Your task to perform on an android device: install app "Skype" Image 0: 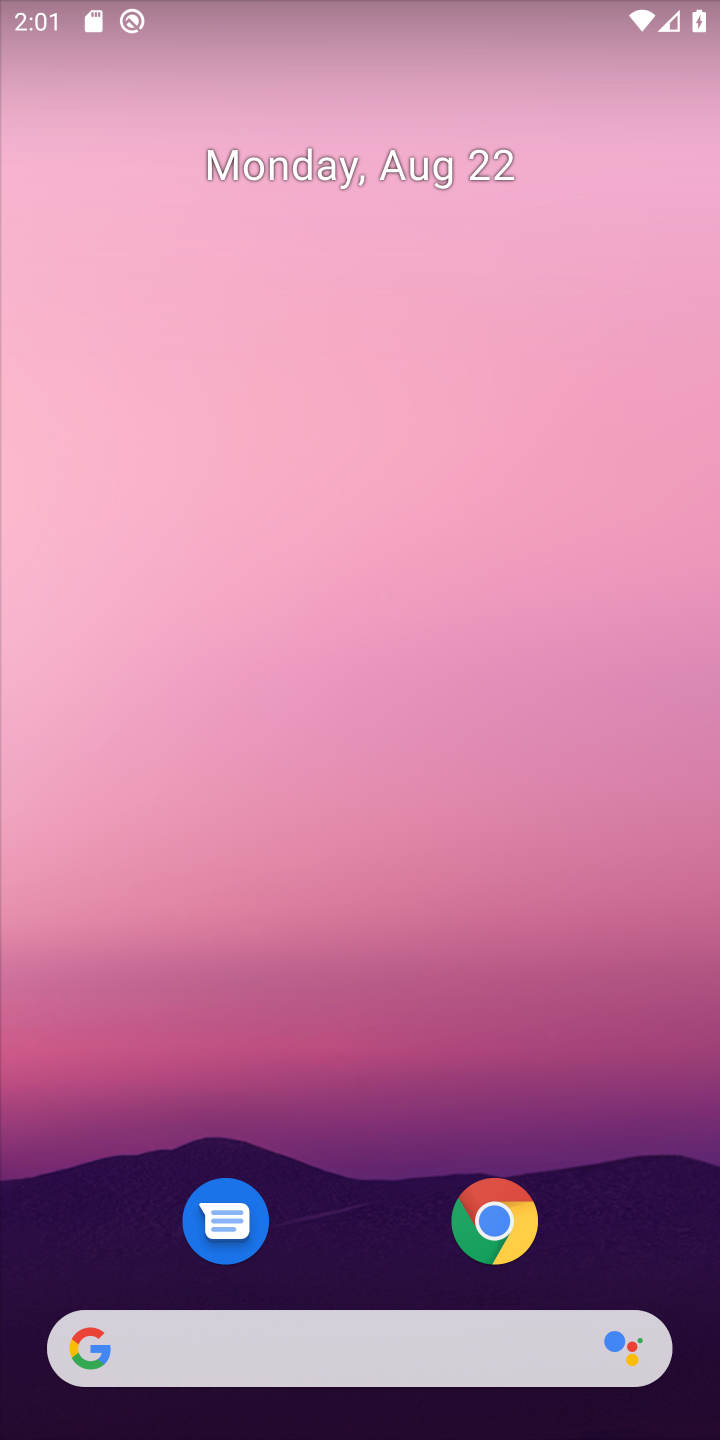
Step 0: press home button
Your task to perform on an android device: install app "Skype" Image 1: 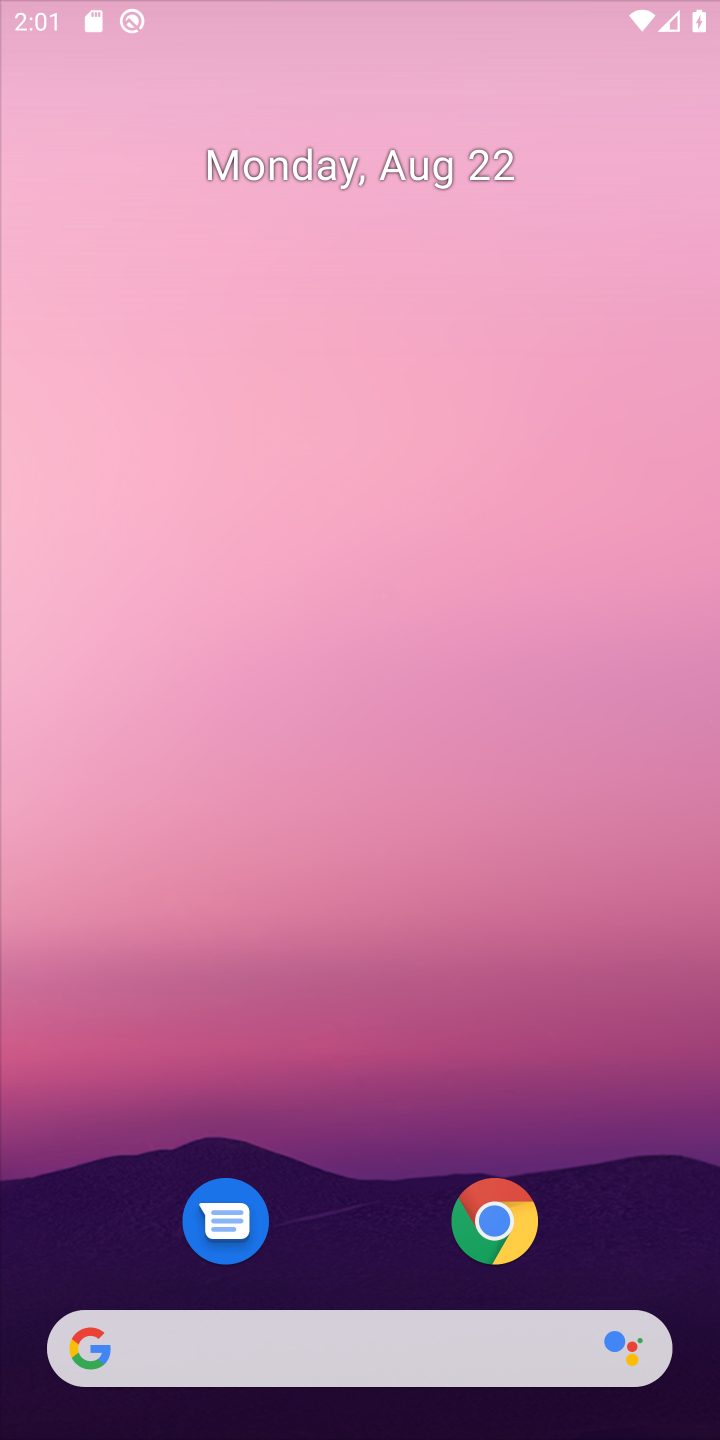
Step 1: drag from (366, 1236) to (389, 1)
Your task to perform on an android device: install app "Skype" Image 2: 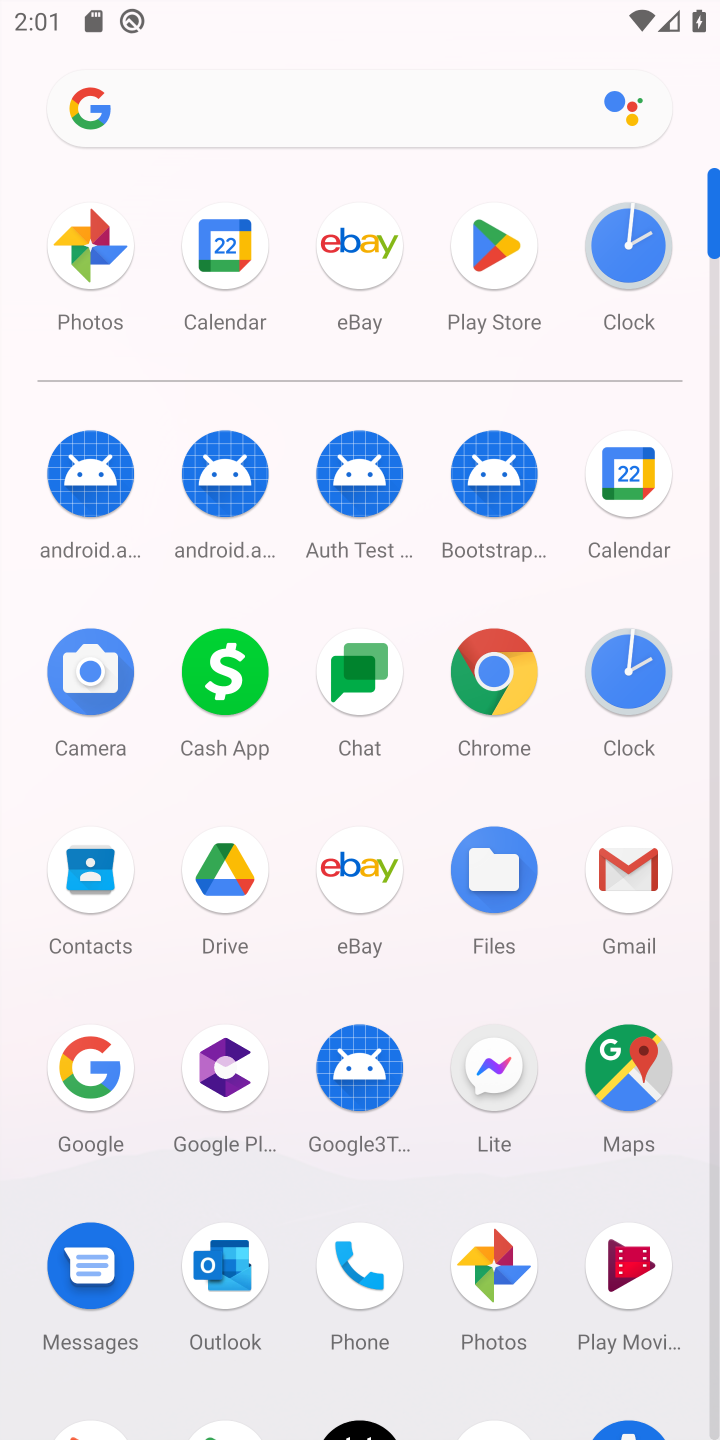
Step 2: click (491, 236)
Your task to perform on an android device: install app "Skype" Image 3: 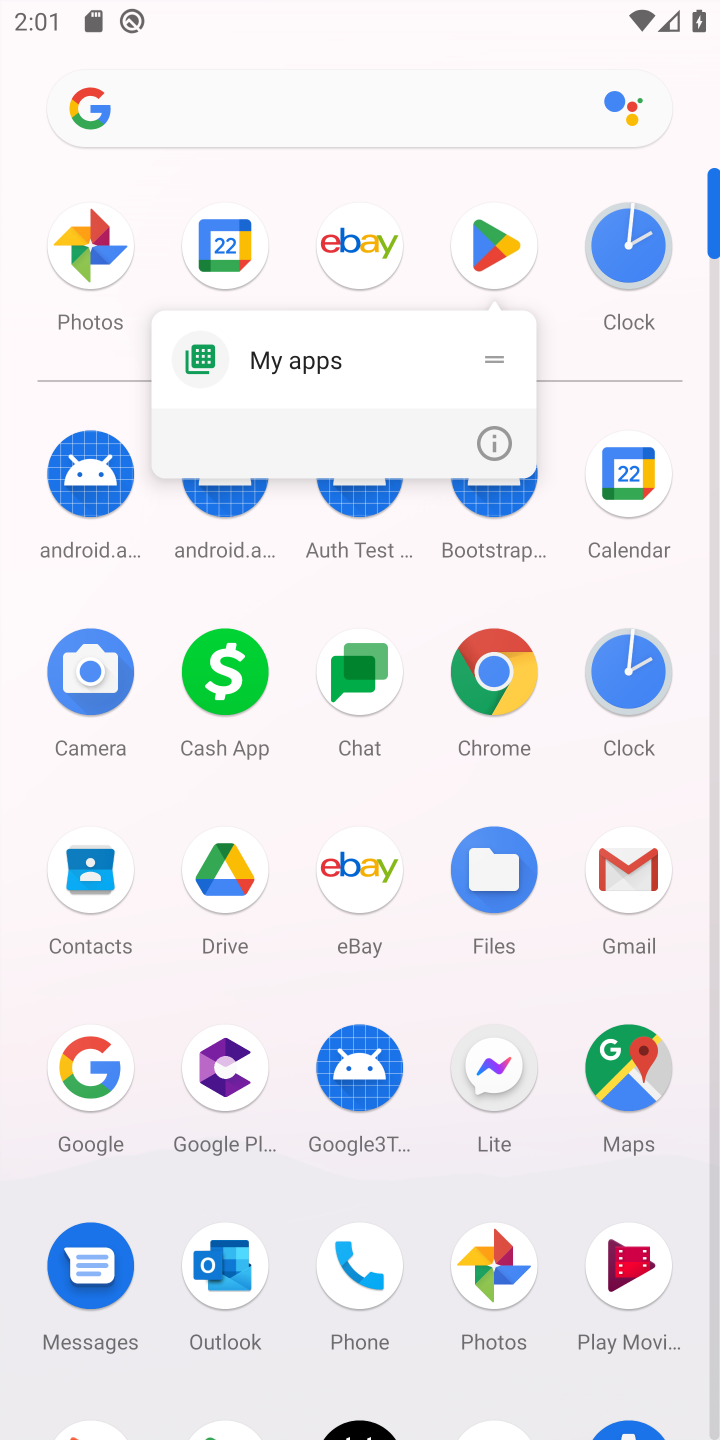
Step 3: click (488, 242)
Your task to perform on an android device: install app "Skype" Image 4: 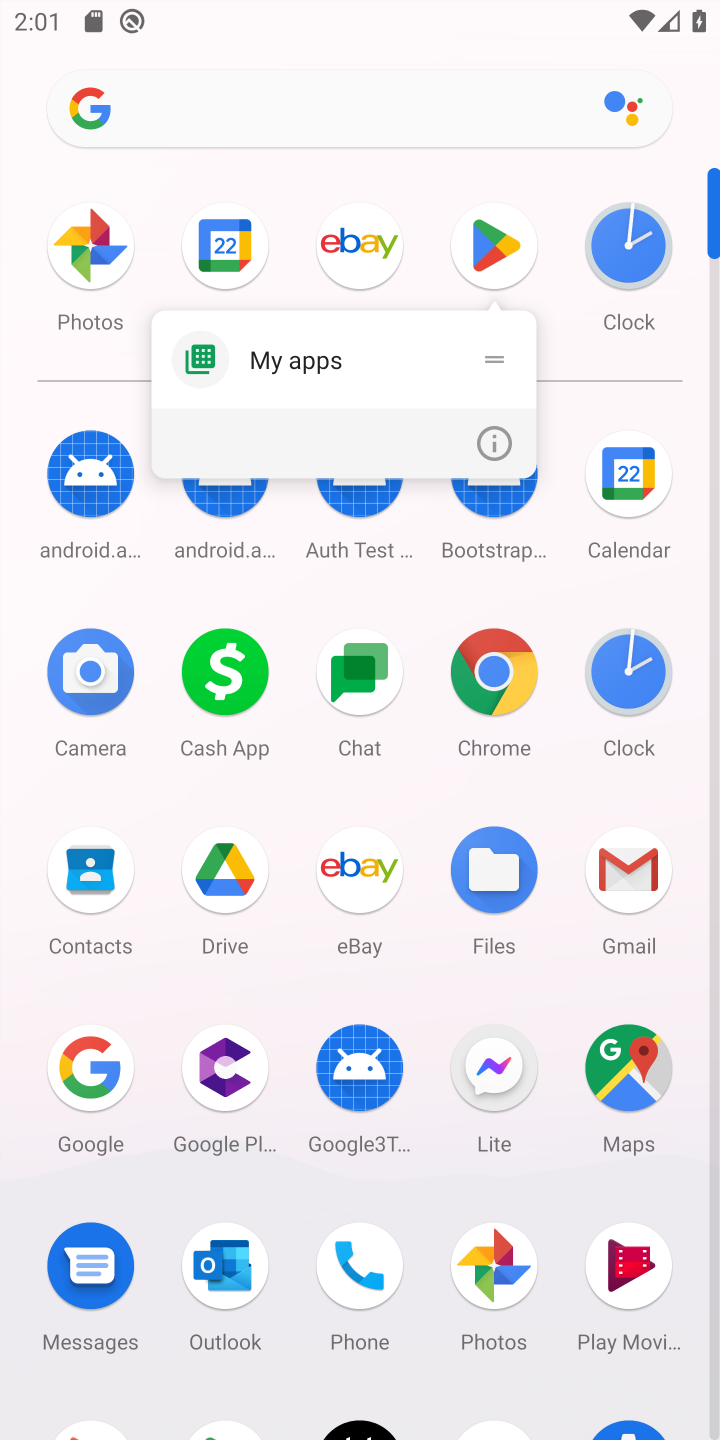
Step 4: click (488, 242)
Your task to perform on an android device: install app "Skype" Image 5: 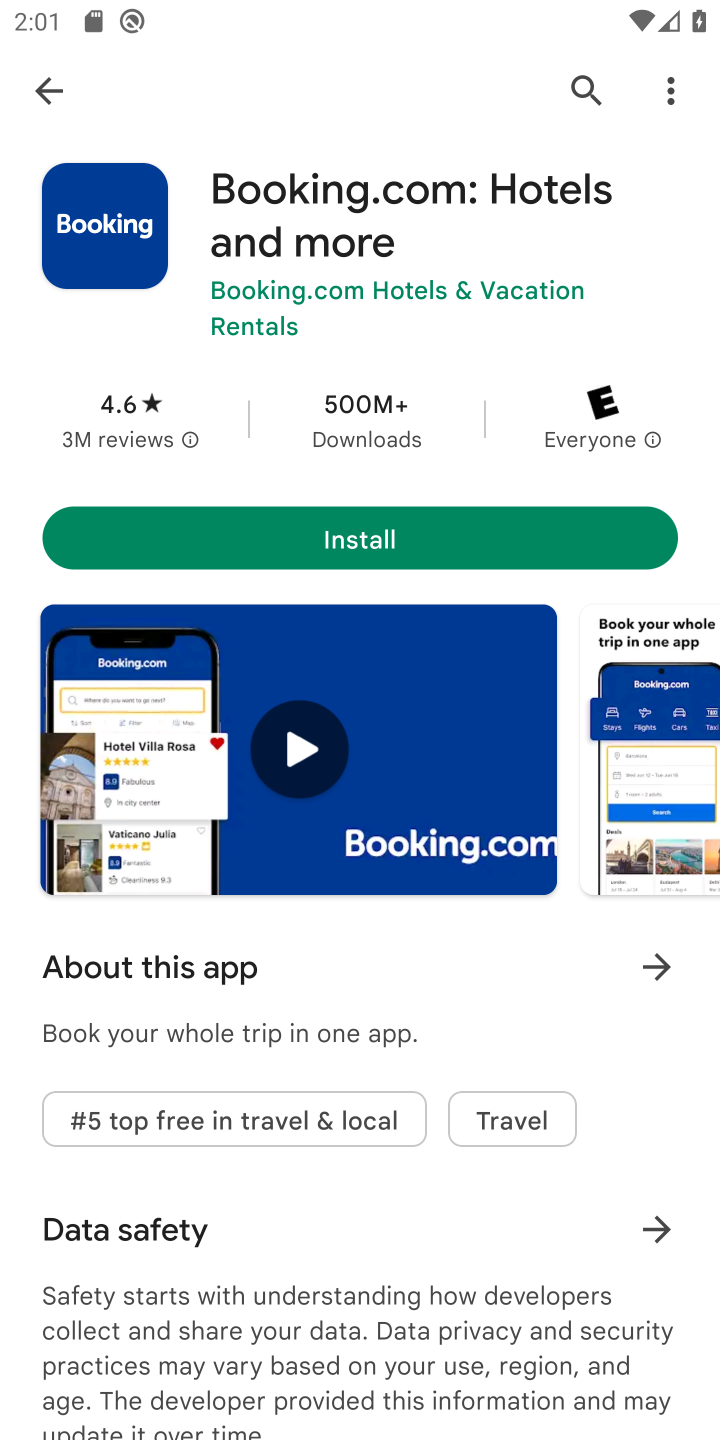
Step 5: click (52, 86)
Your task to perform on an android device: install app "Skype" Image 6: 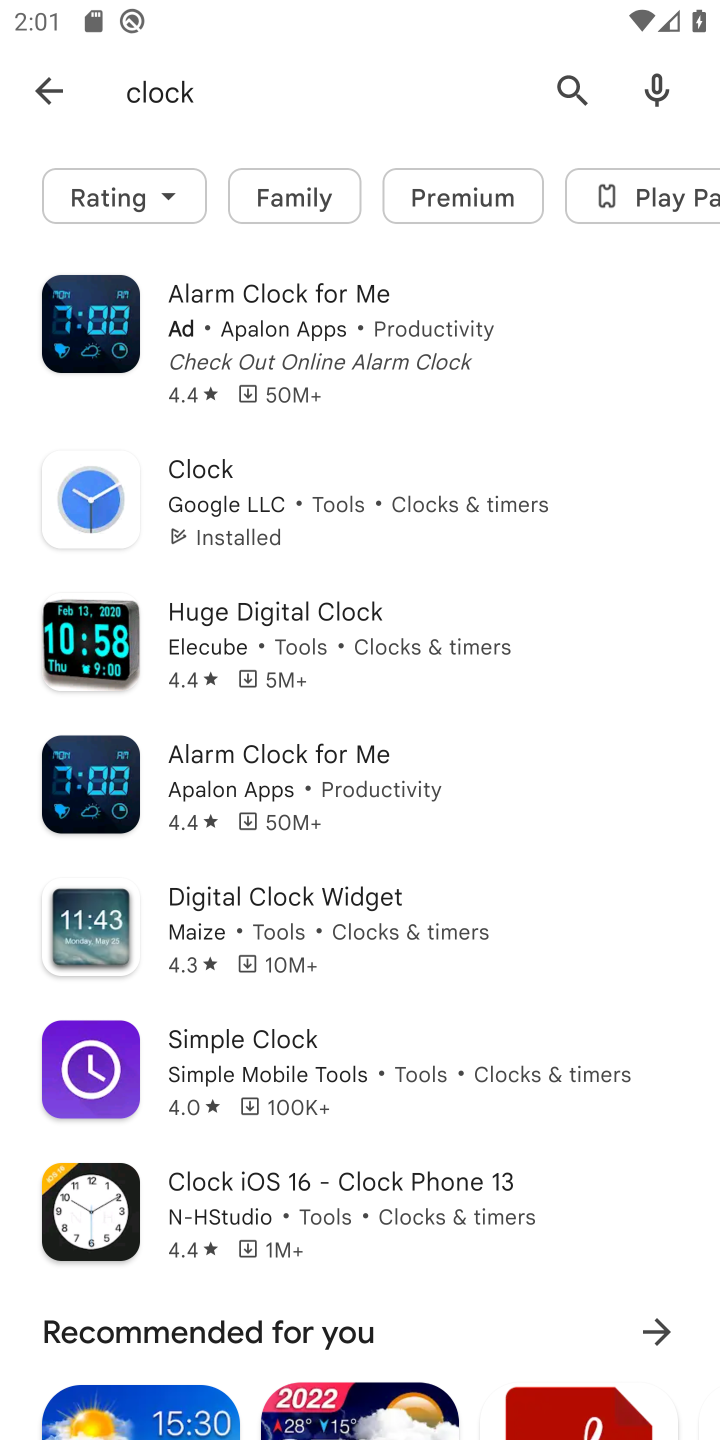
Step 6: click (564, 82)
Your task to perform on an android device: install app "Skype" Image 7: 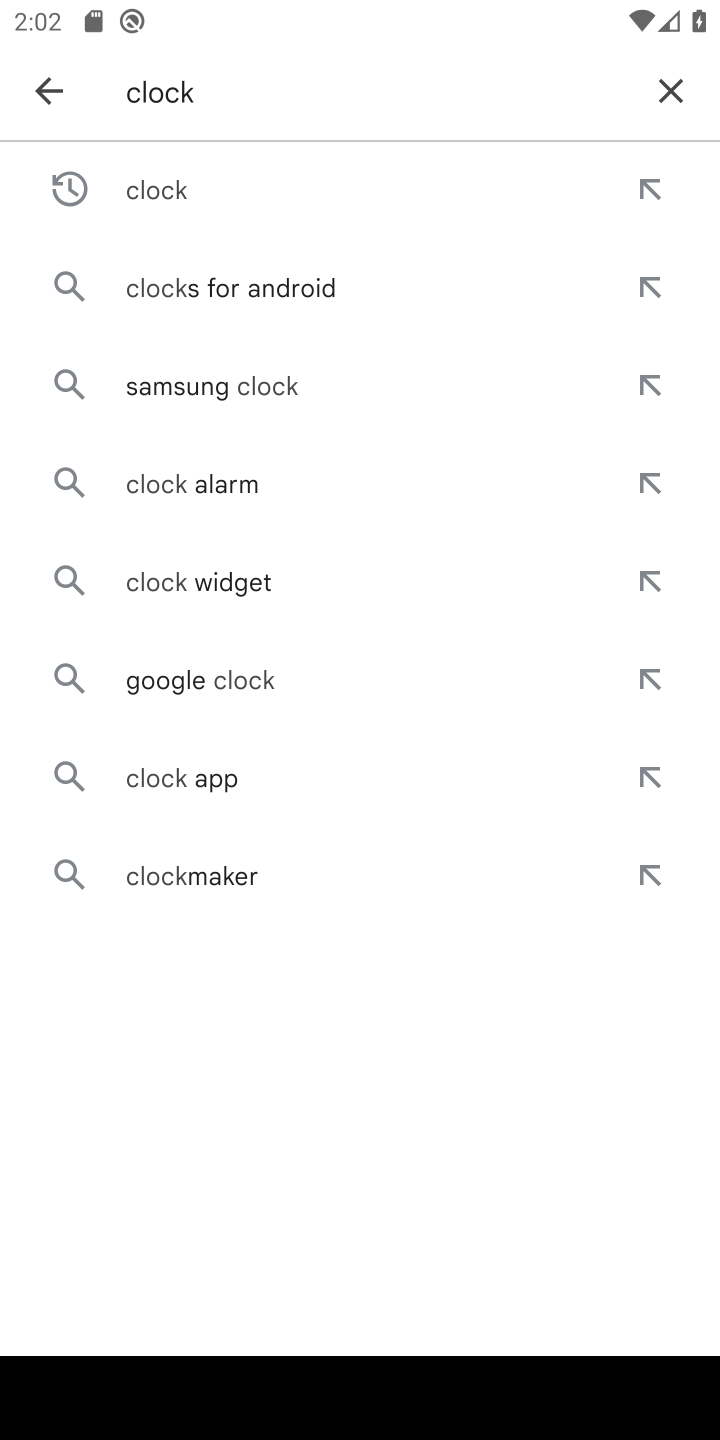
Step 7: click (669, 91)
Your task to perform on an android device: install app "Skype" Image 8: 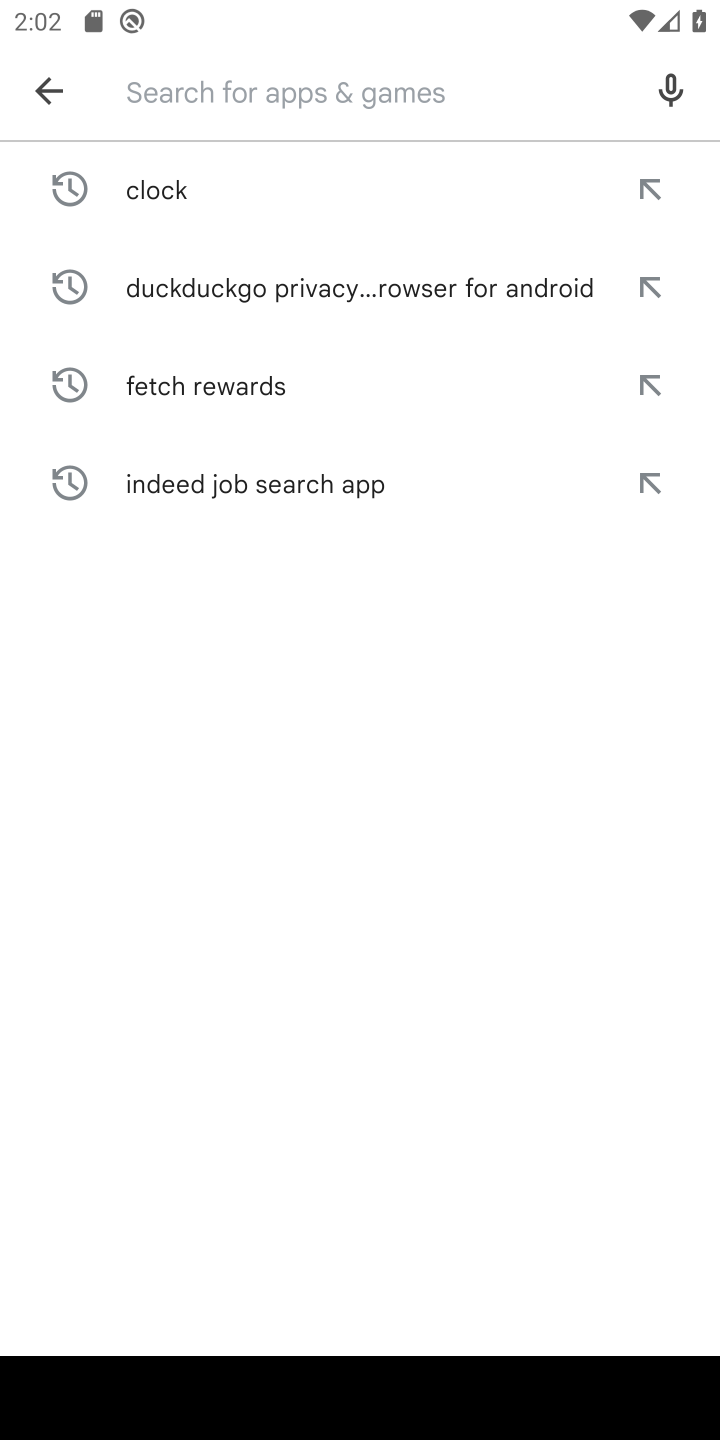
Step 8: type "Skype"
Your task to perform on an android device: install app "Skype" Image 9: 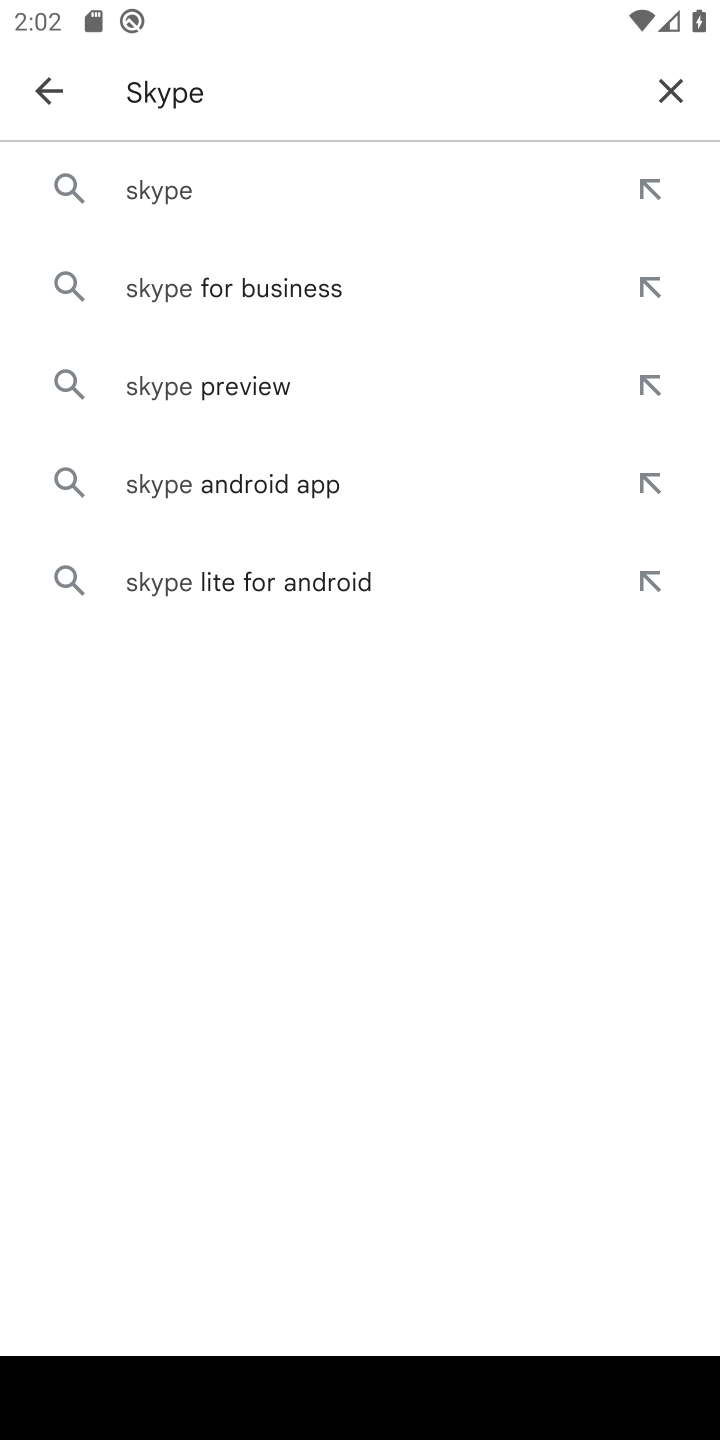
Step 9: click (206, 192)
Your task to perform on an android device: install app "Skype" Image 10: 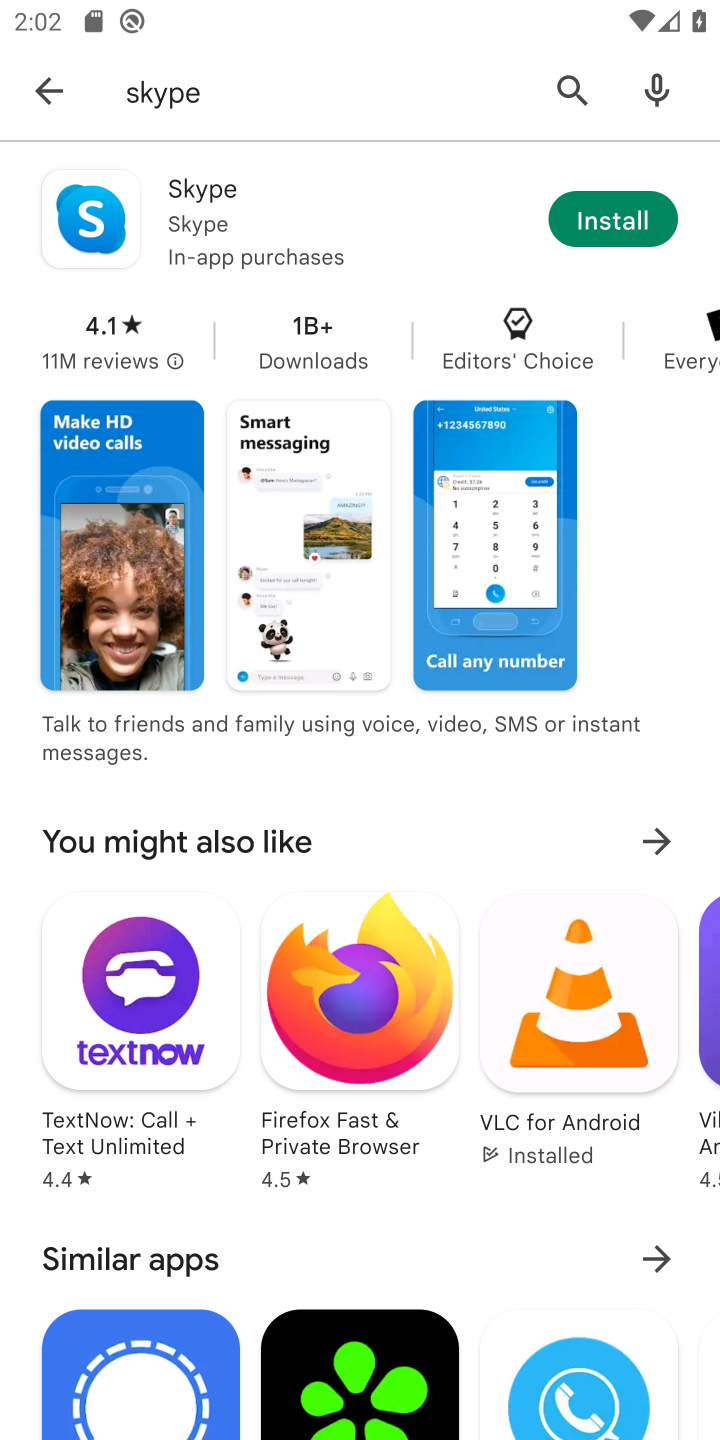
Step 10: click (599, 207)
Your task to perform on an android device: install app "Skype" Image 11: 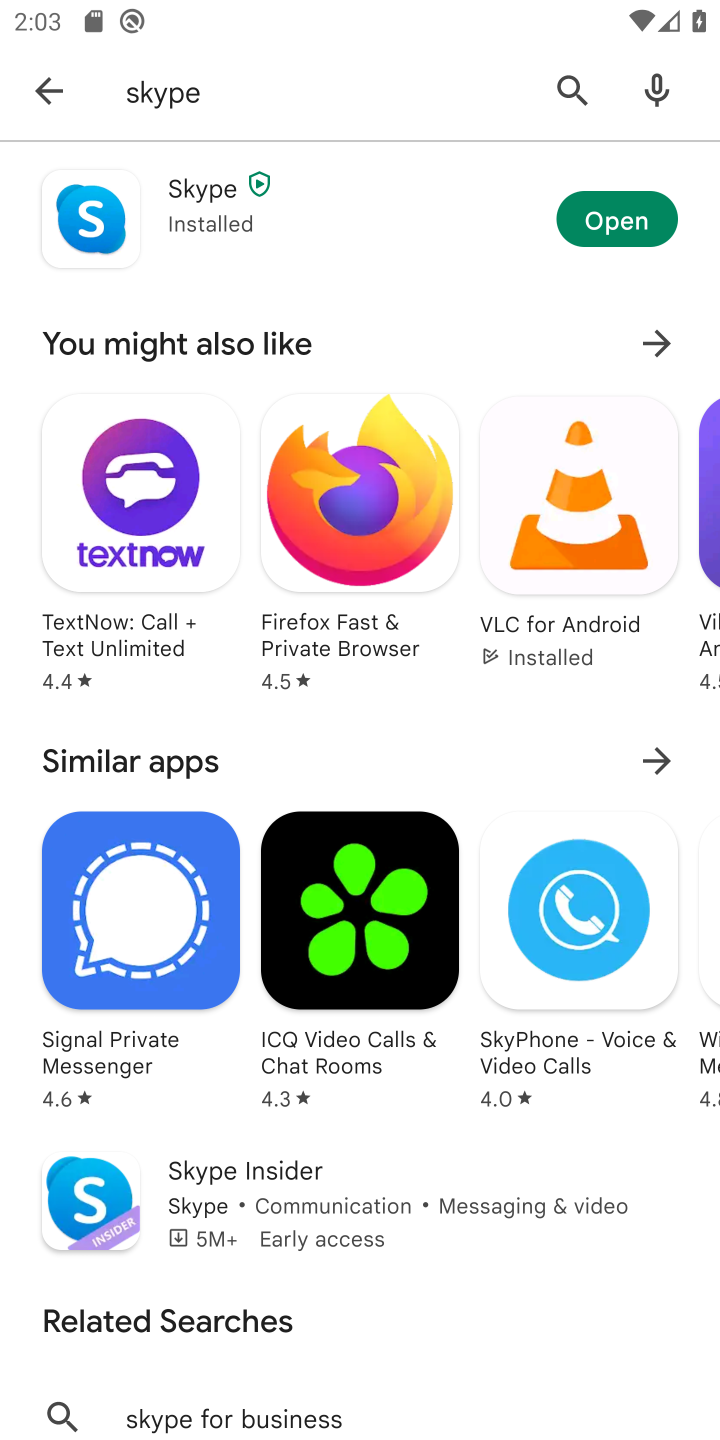
Step 11: click (614, 212)
Your task to perform on an android device: install app "Skype" Image 12: 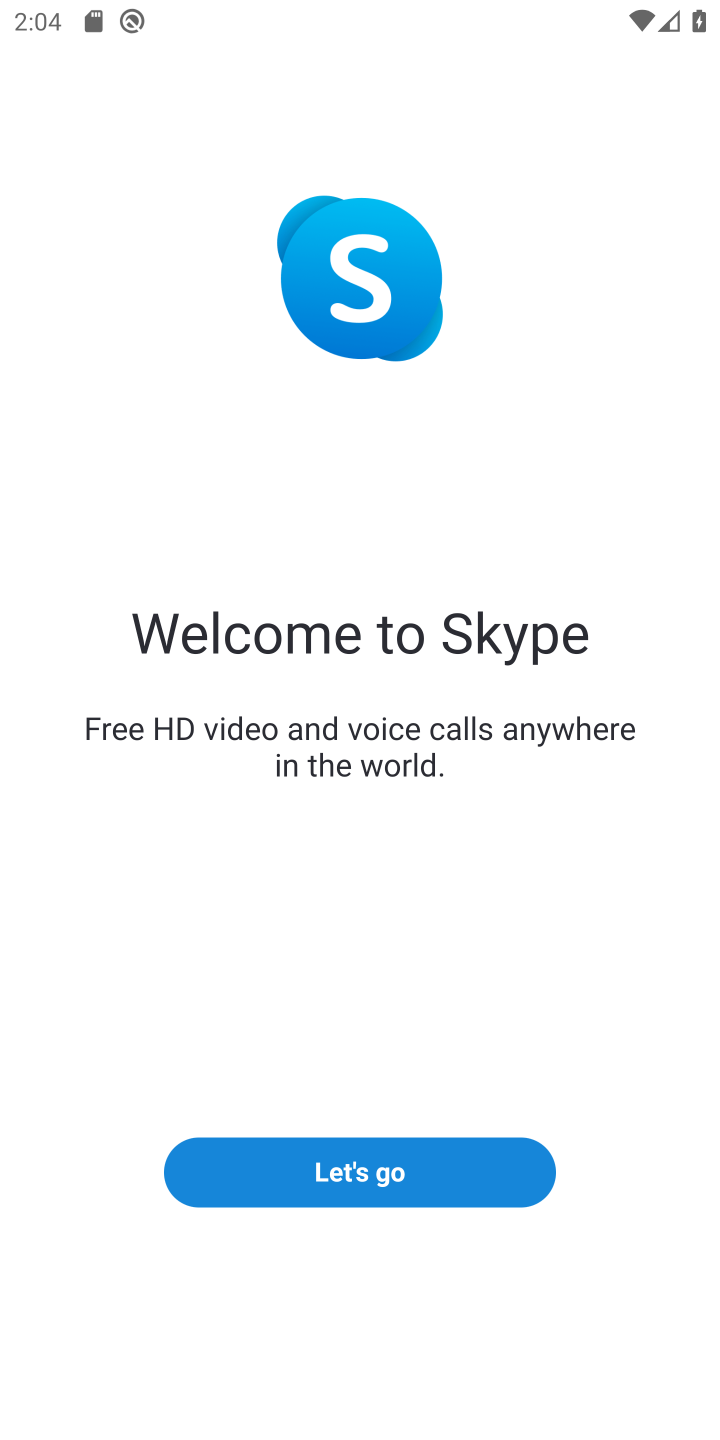
Step 12: click (358, 1161)
Your task to perform on an android device: install app "Skype" Image 13: 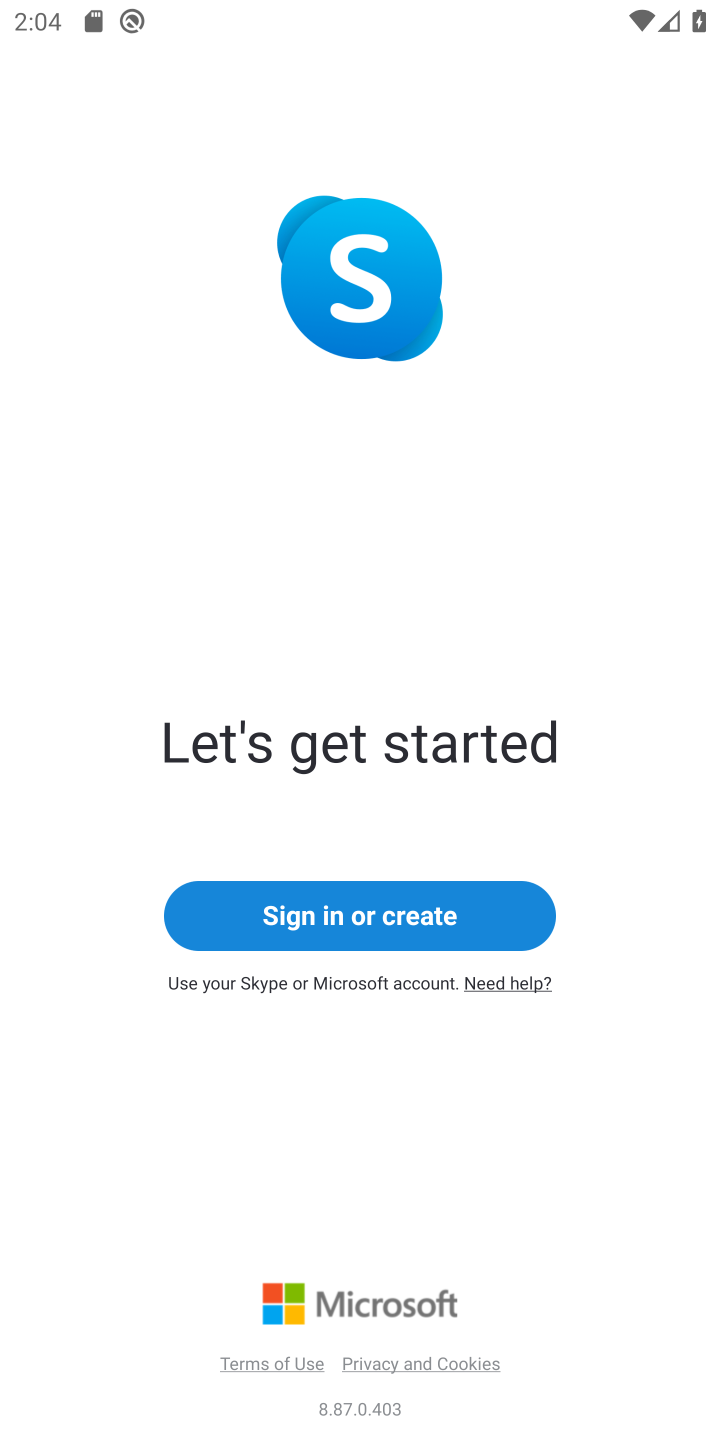
Step 13: task complete